Your task to perform on an android device: Open calendar and show me the second week of next month Image 0: 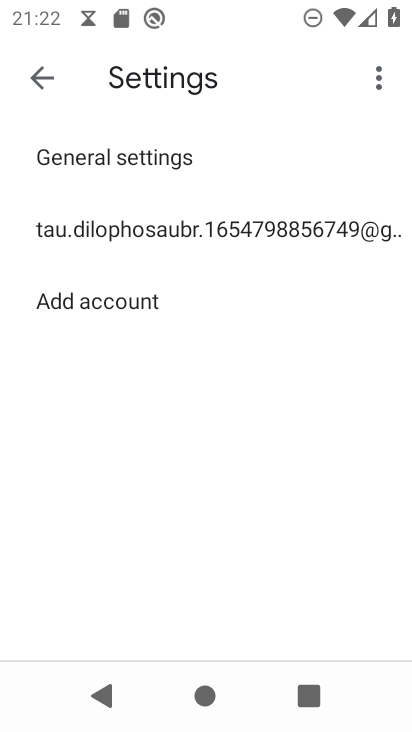
Step 0: press home button
Your task to perform on an android device: Open calendar and show me the second week of next month Image 1: 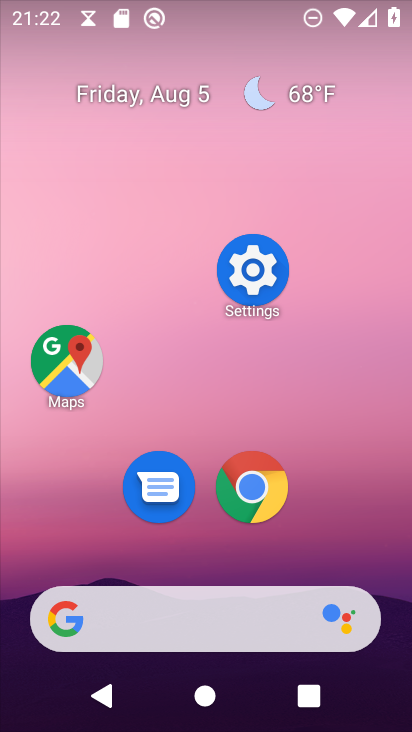
Step 1: drag from (190, 621) to (281, 133)
Your task to perform on an android device: Open calendar and show me the second week of next month Image 2: 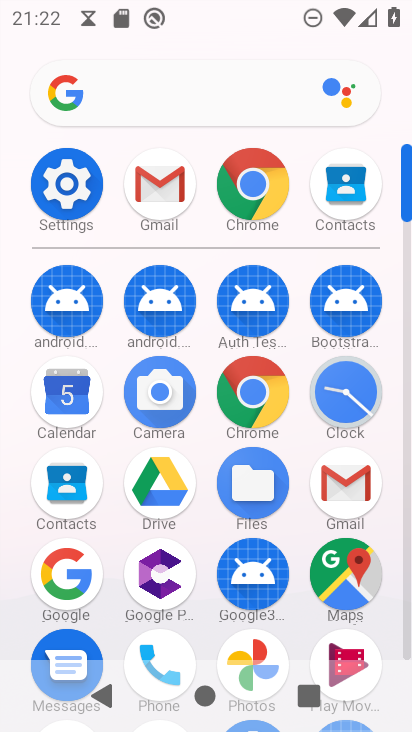
Step 2: click (66, 397)
Your task to perform on an android device: Open calendar and show me the second week of next month Image 3: 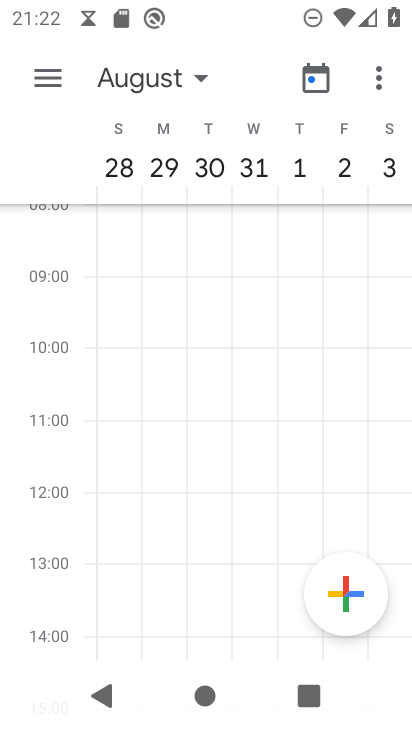
Step 3: click (156, 88)
Your task to perform on an android device: Open calendar and show me the second week of next month Image 4: 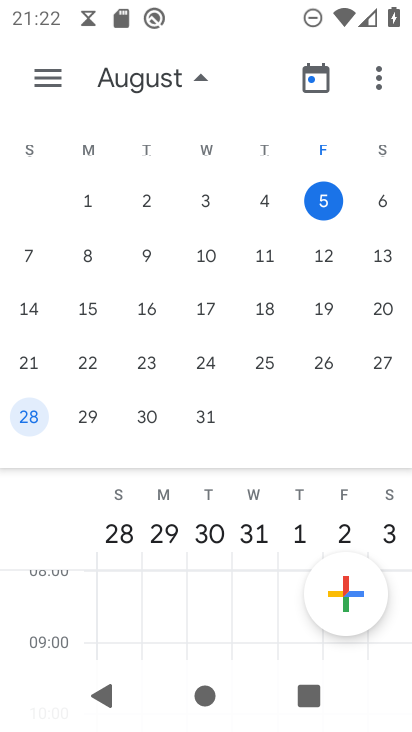
Step 4: drag from (348, 321) to (26, 337)
Your task to perform on an android device: Open calendar and show me the second week of next month Image 5: 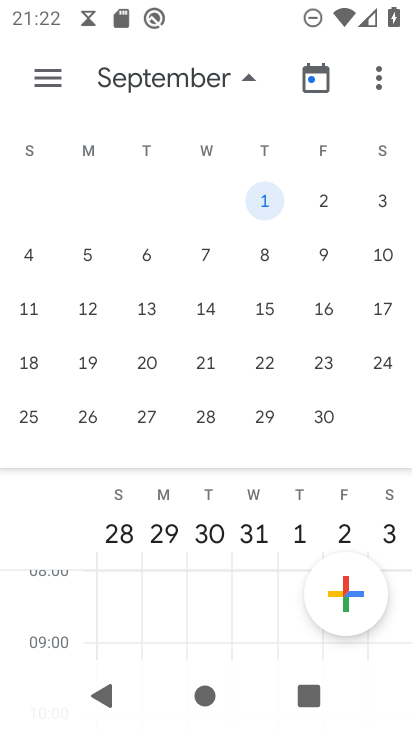
Step 5: drag from (313, 260) to (0, 267)
Your task to perform on an android device: Open calendar and show me the second week of next month Image 6: 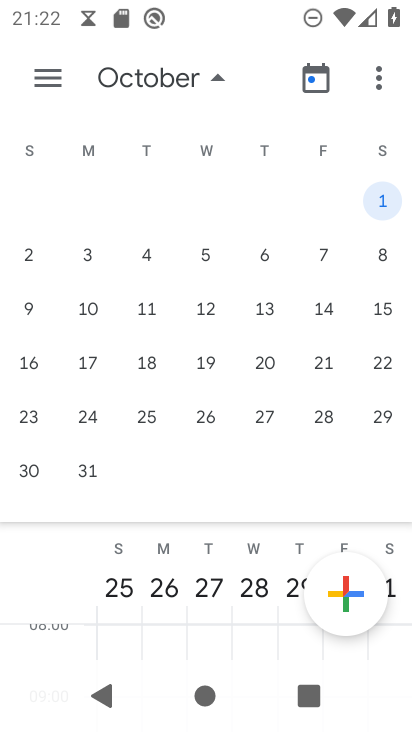
Step 6: drag from (38, 338) to (412, 300)
Your task to perform on an android device: Open calendar and show me the second week of next month Image 7: 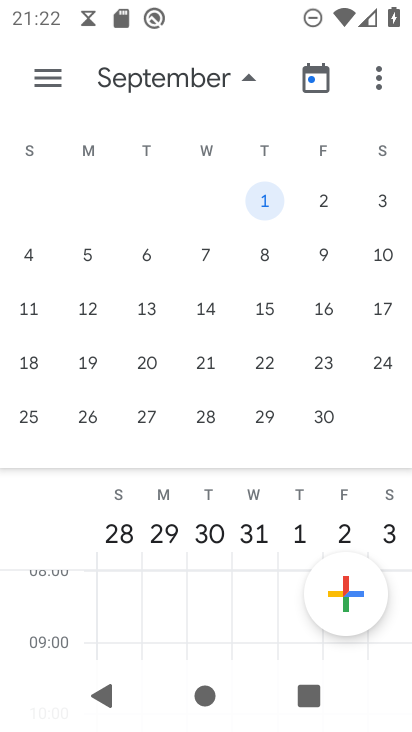
Step 7: click (26, 255)
Your task to perform on an android device: Open calendar and show me the second week of next month Image 8: 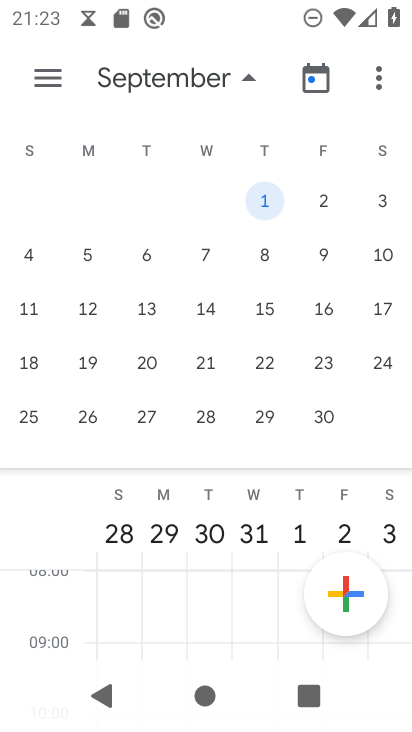
Step 8: click (40, 257)
Your task to perform on an android device: Open calendar and show me the second week of next month Image 9: 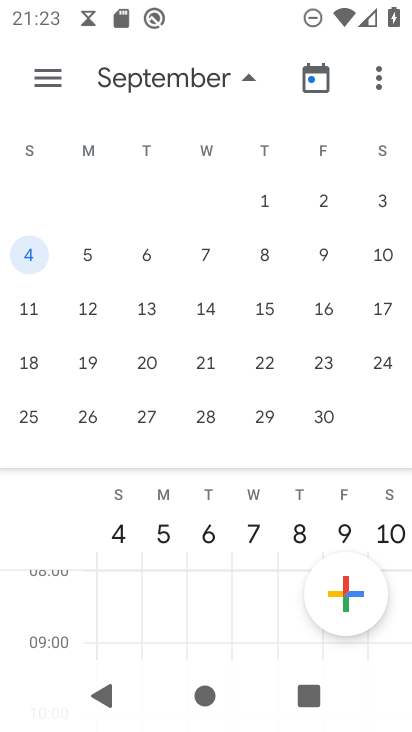
Step 9: click (52, 77)
Your task to perform on an android device: Open calendar and show me the second week of next month Image 10: 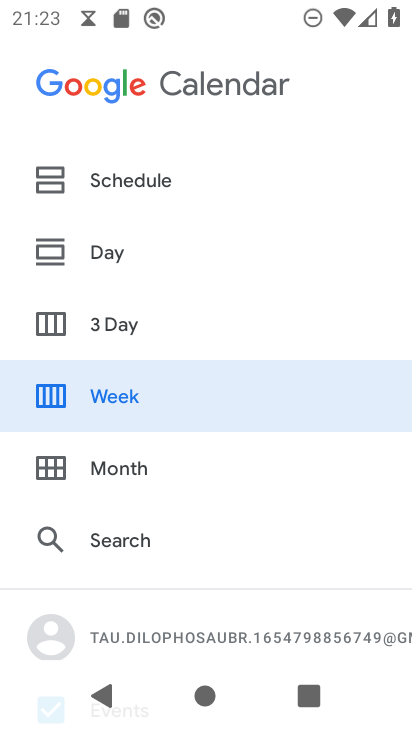
Step 10: click (117, 397)
Your task to perform on an android device: Open calendar and show me the second week of next month Image 11: 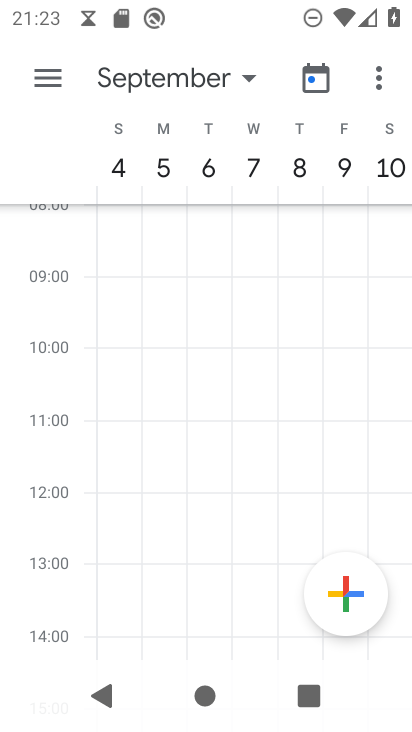
Step 11: task complete